Your task to perform on an android device: Empty the shopping cart on amazon. Add "lenovo thinkpad" to the cart on amazon Image 0: 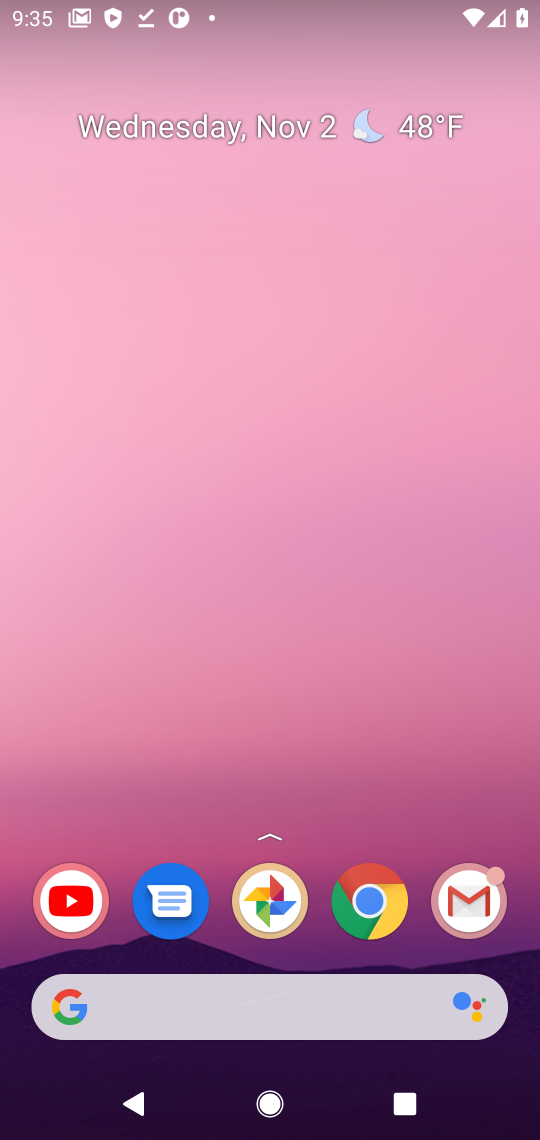
Step 0: click (392, 899)
Your task to perform on an android device: Empty the shopping cart on amazon. Add "lenovo thinkpad" to the cart on amazon Image 1: 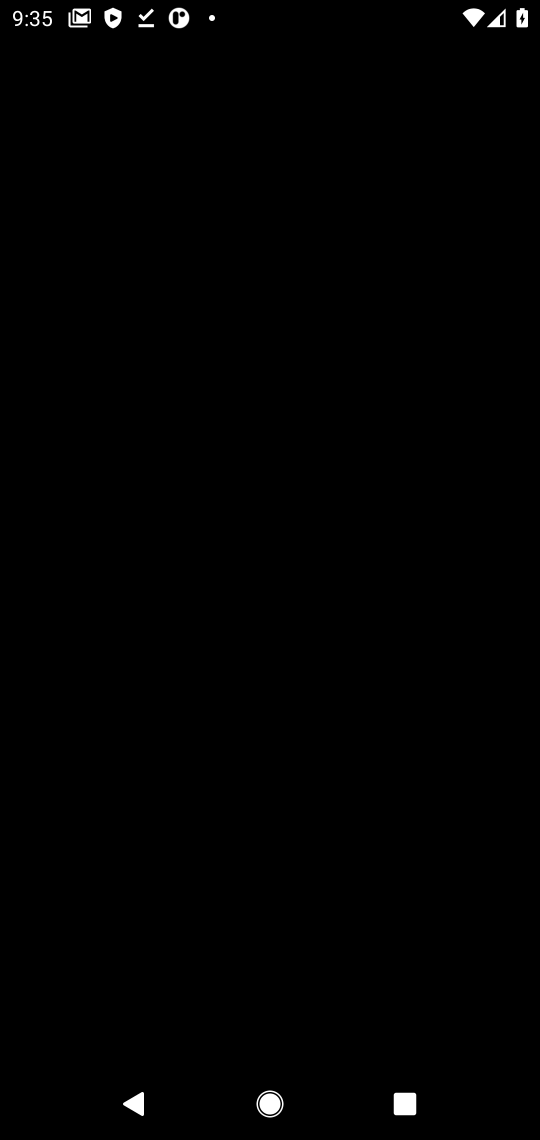
Step 1: press home button
Your task to perform on an android device: Empty the shopping cart on amazon. Add "lenovo thinkpad" to the cart on amazon Image 2: 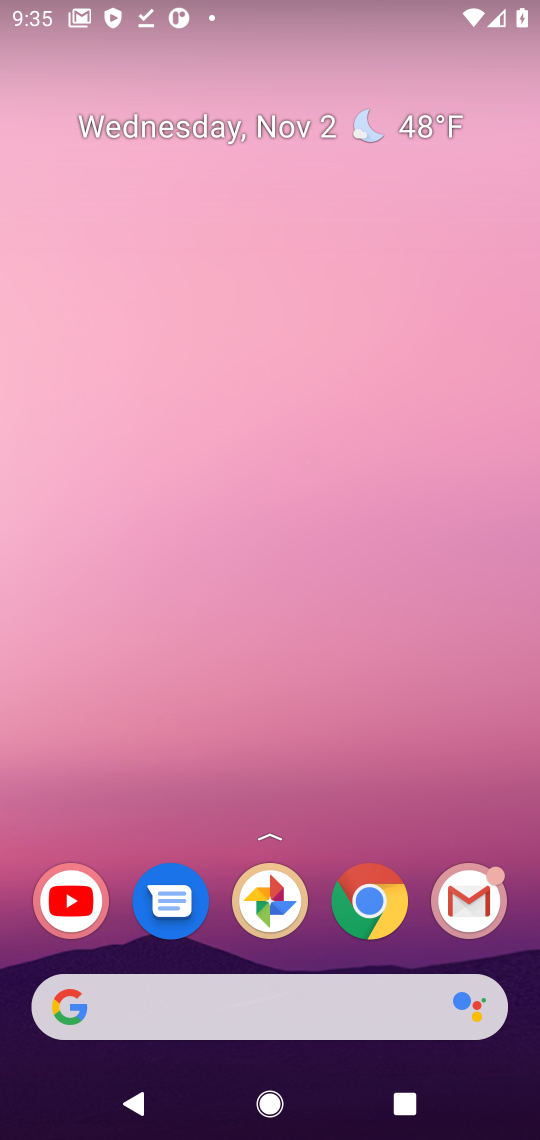
Step 2: click (376, 915)
Your task to perform on an android device: Empty the shopping cart on amazon. Add "lenovo thinkpad" to the cart on amazon Image 3: 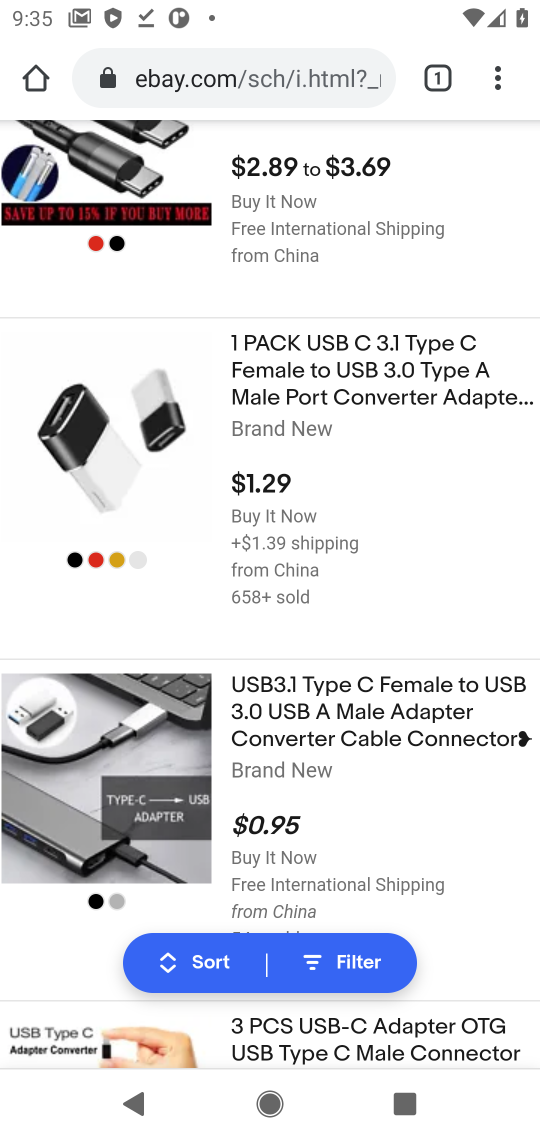
Step 3: click (210, 80)
Your task to perform on an android device: Empty the shopping cart on amazon. Add "lenovo thinkpad" to the cart on amazon Image 4: 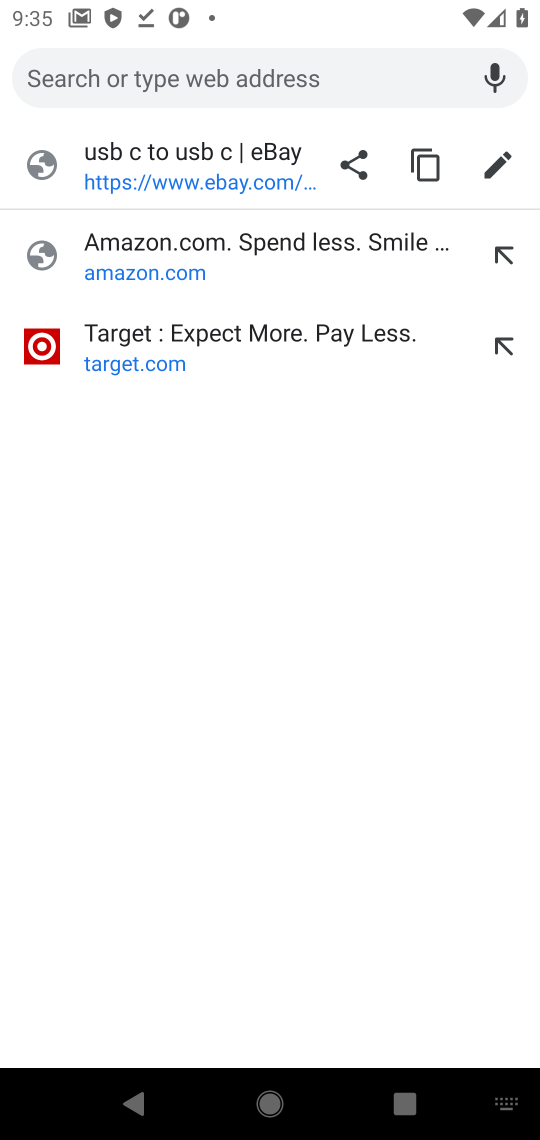
Step 4: type "amazon"
Your task to perform on an android device: Empty the shopping cart on amazon. Add "lenovo thinkpad" to the cart on amazon Image 5: 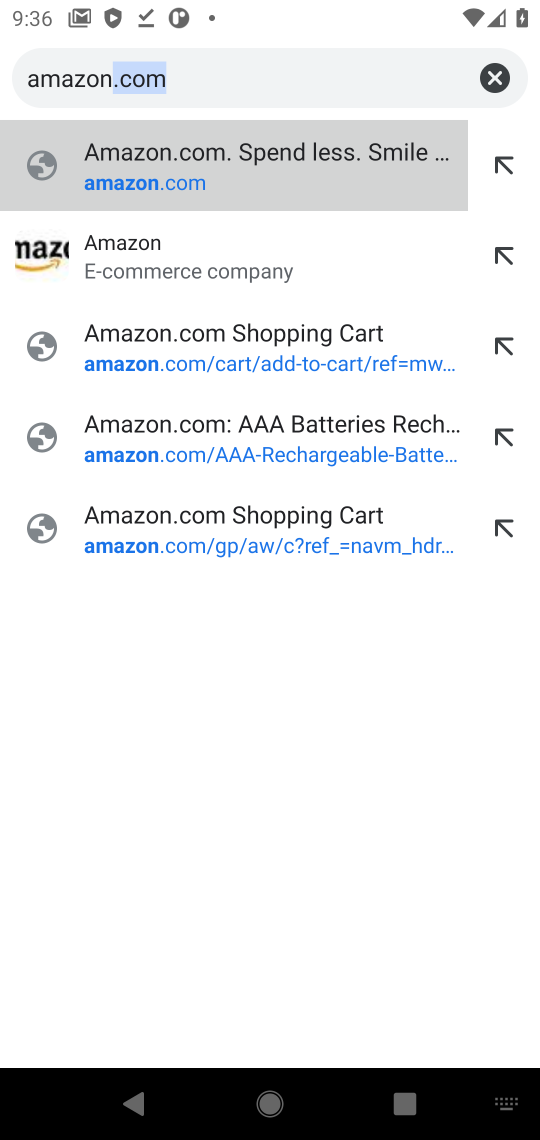
Step 5: click (355, 204)
Your task to perform on an android device: Empty the shopping cart on amazon. Add "lenovo thinkpad" to the cart on amazon Image 6: 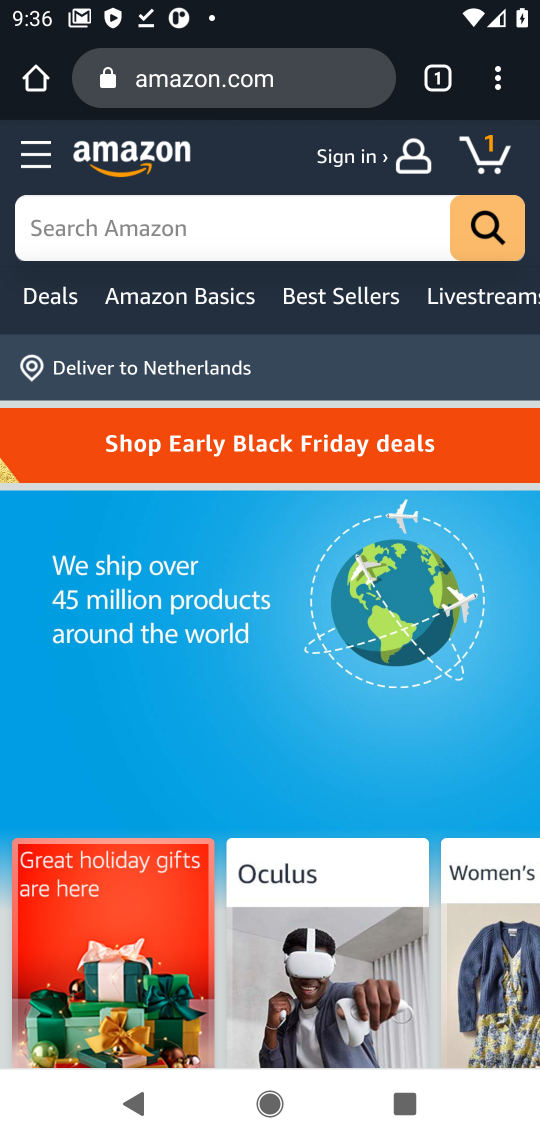
Step 6: click (491, 164)
Your task to perform on an android device: Empty the shopping cart on amazon. Add "lenovo thinkpad" to the cart on amazon Image 7: 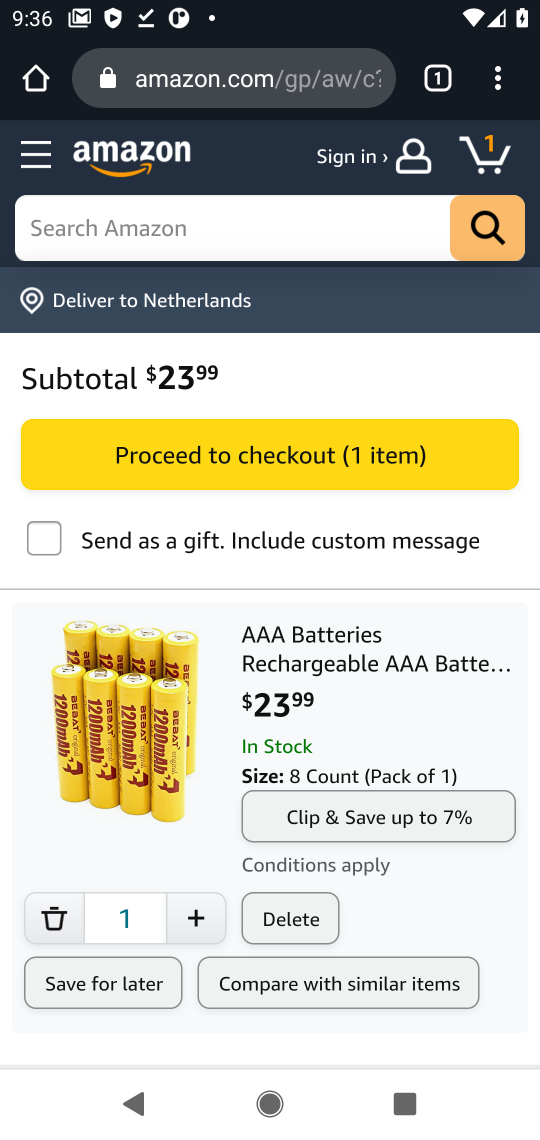
Step 7: click (296, 916)
Your task to perform on an android device: Empty the shopping cart on amazon. Add "lenovo thinkpad" to the cart on amazon Image 8: 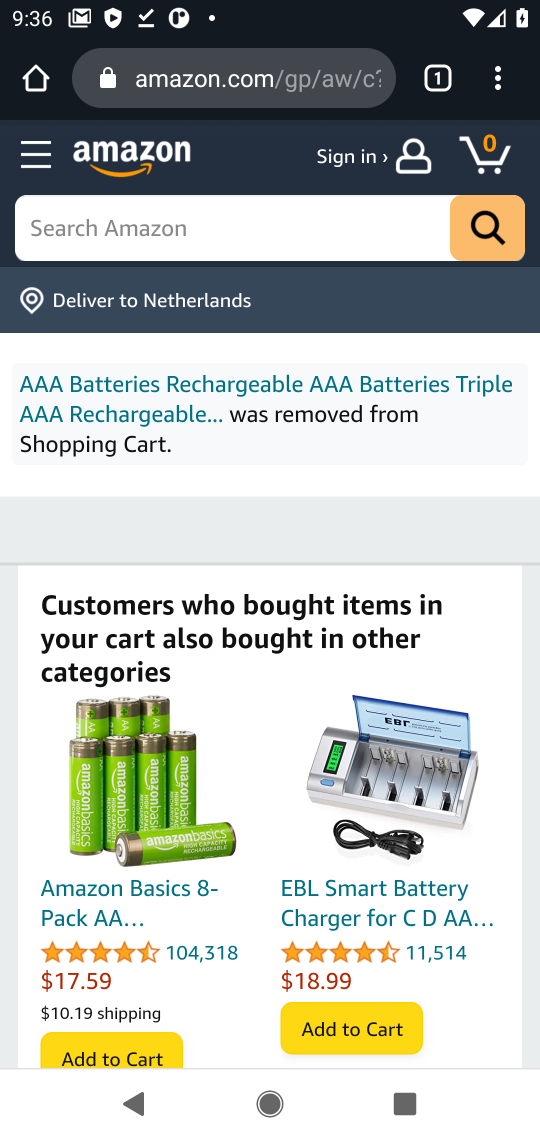
Step 8: click (308, 239)
Your task to perform on an android device: Empty the shopping cart on amazon. Add "lenovo thinkpad" to the cart on amazon Image 9: 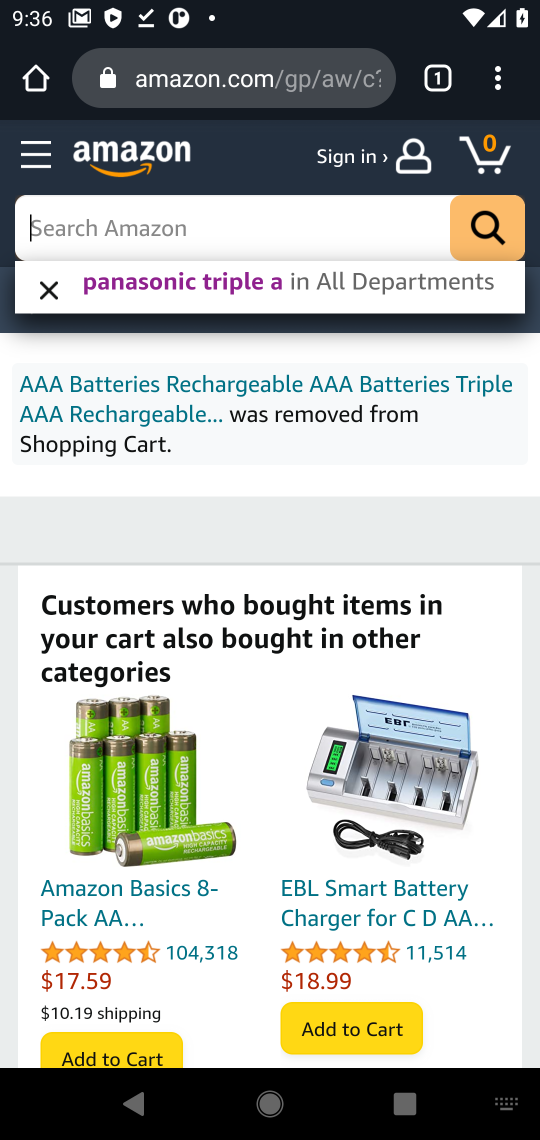
Step 9: type "lenovo thinkpad"
Your task to perform on an android device: Empty the shopping cart on amazon. Add "lenovo thinkpad" to the cart on amazon Image 10: 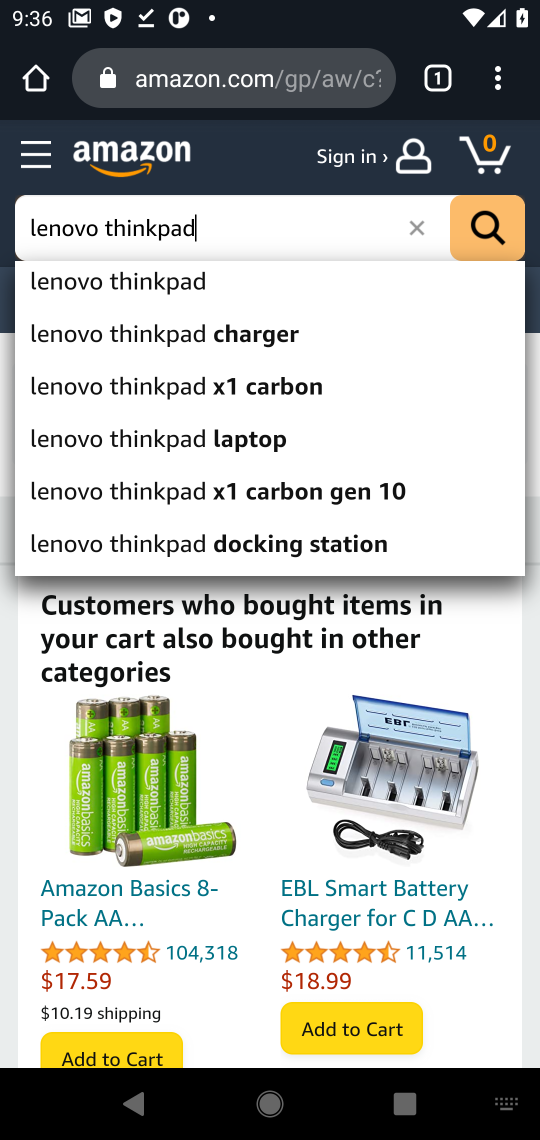
Step 10: click (498, 235)
Your task to perform on an android device: Empty the shopping cart on amazon. Add "lenovo thinkpad" to the cart on amazon Image 11: 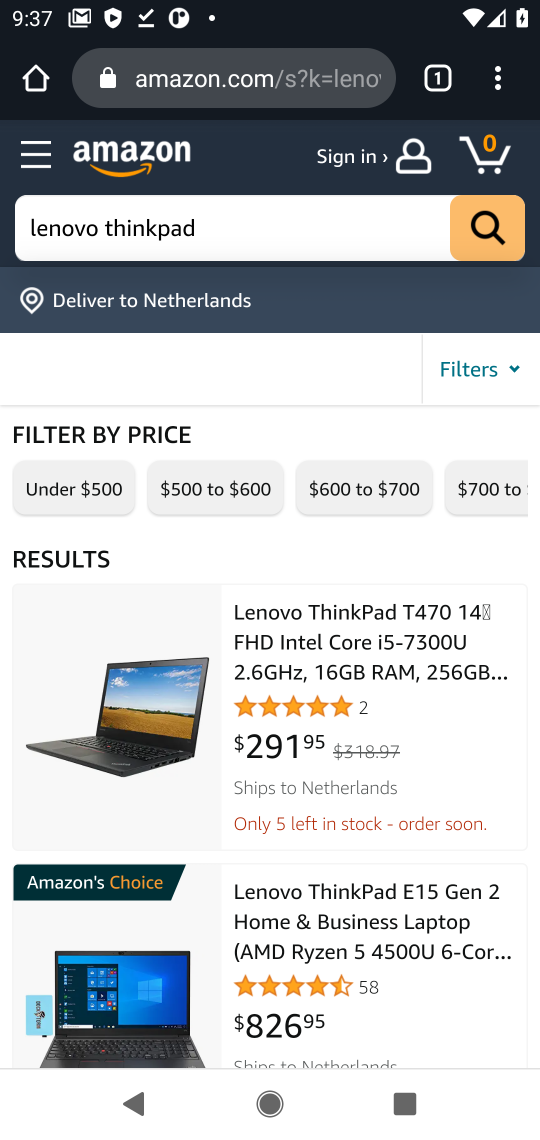
Step 11: click (96, 713)
Your task to perform on an android device: Empty the shopping cart on amazon. Add "lenovo thinkpad" to the cart on amazon Image 12: 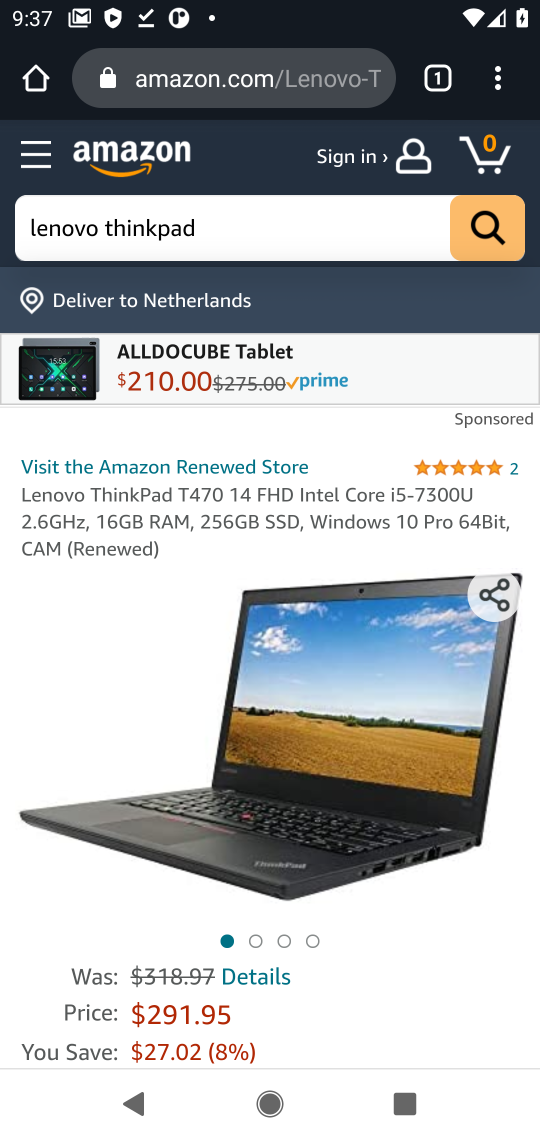
Step 12: drag from (60, 758) to (102, 486)
Your task to perform on an android device: Empty the shopping cart on amazon. Add "lenovo thinkpad" to the cart on amazon Image 13: 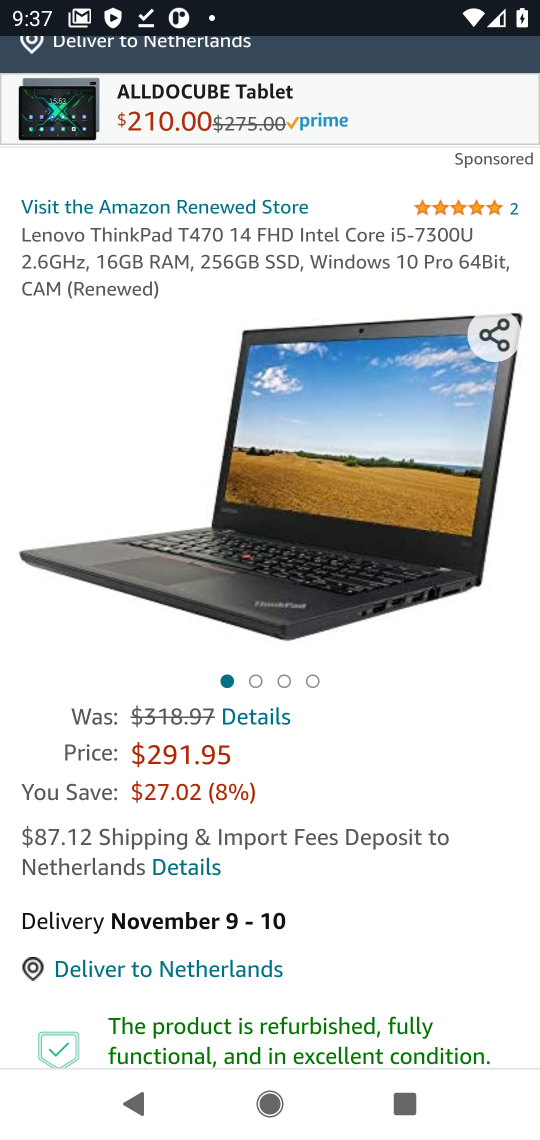
Step 13: drag from (484, 939) to (385, 242)
Your task to perform on an android device: Empty the shopping cart on amazon. Add "lenovo thinkpad" to the cart on amazon Image 14: 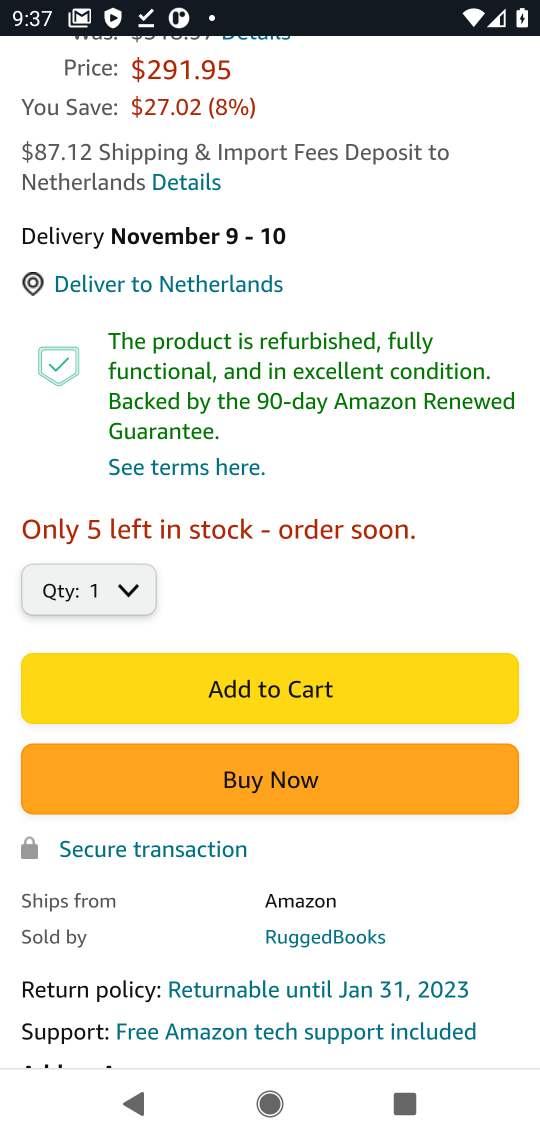
Step 14: click (235, 679)
Your task to perform on an android device: Empty the shopping cart on amazon. Add "lenovo thinkpad" to the cart on amazon Image 15: 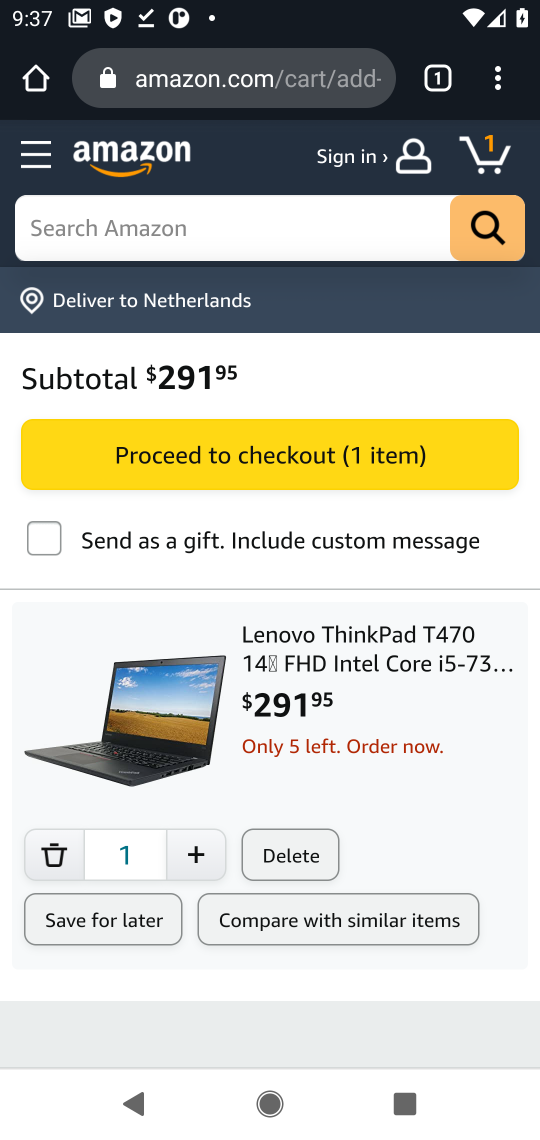
Step 15: task complete